Your task to perform on an android device: What's on my calendar today? Image 0: 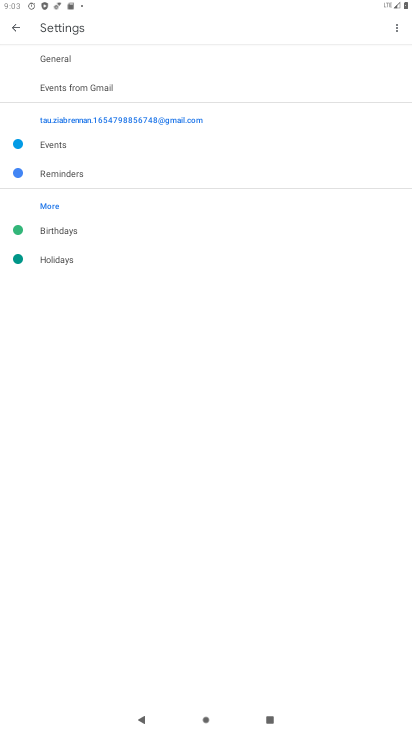
Step 0: press home button
Your task to perform on an android device: What's on my calendar today? Image 1: 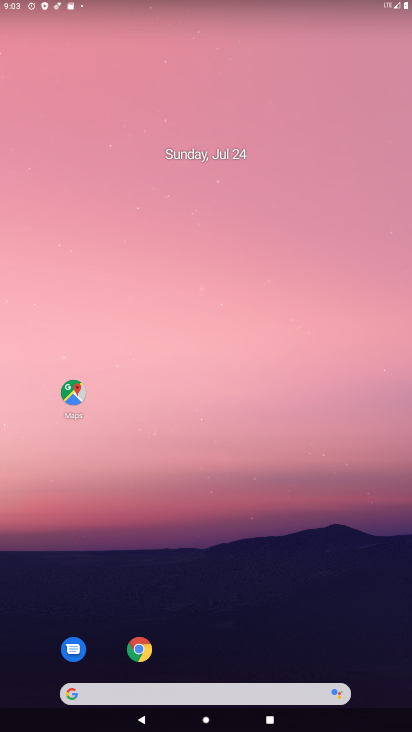
Step 1: drag from (8, 691) to (214, 104)
Your task to perform on an android device: What's on my calendar today? Image 2: 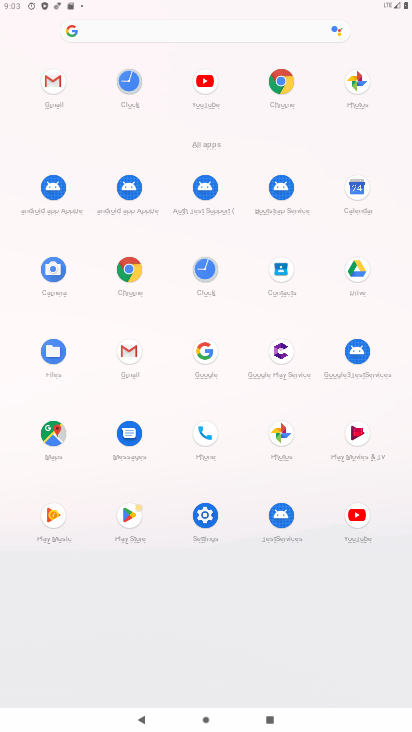
Step 2: click (346, 189)
Your task to perform on an android device: What's on my calendar today? Image 3: 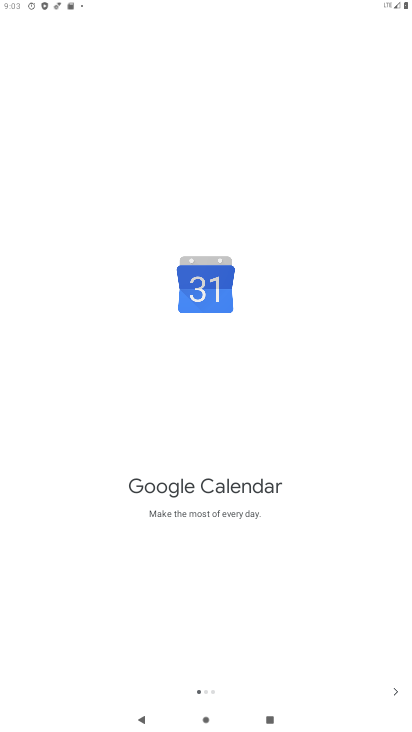
Step 3: click (398, 689)
Your task to perform on an android device: What's on my calendar today? Image 4: 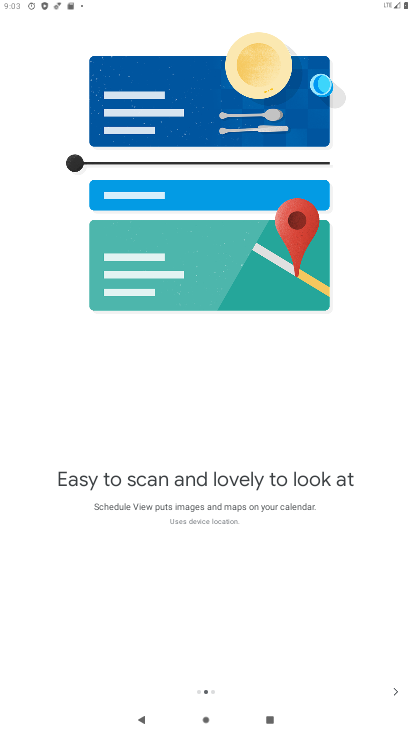
Step 4: click (396, 692)
Your task to perform on an android device: What's on my calendar today? Image 5: 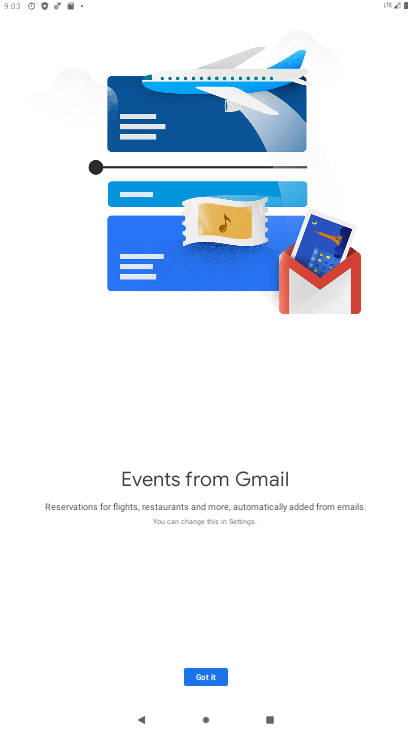
Step 5: click (200, 671)
Your task to perform on an android device: What's on my calendar today? Image 6: 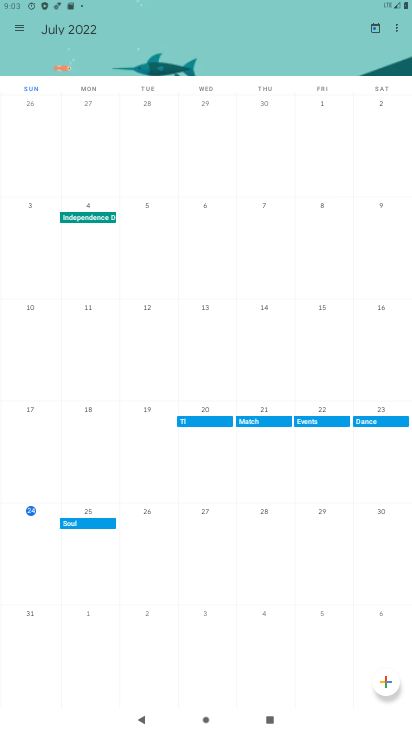
Step 6: task complete